Your task to perform on an android device: turn vacation reply on in the gmail app Image 0: 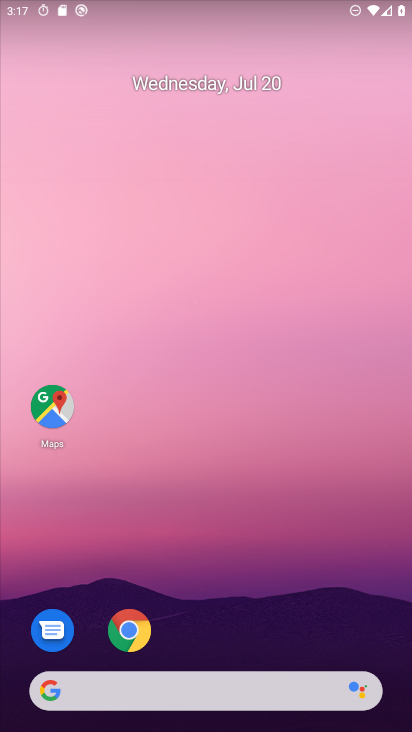
Step 0: drag from (263, 667) to (204, 171)
Your task to perform on an android device: turn vacation reply on in the gmail app Image 1: 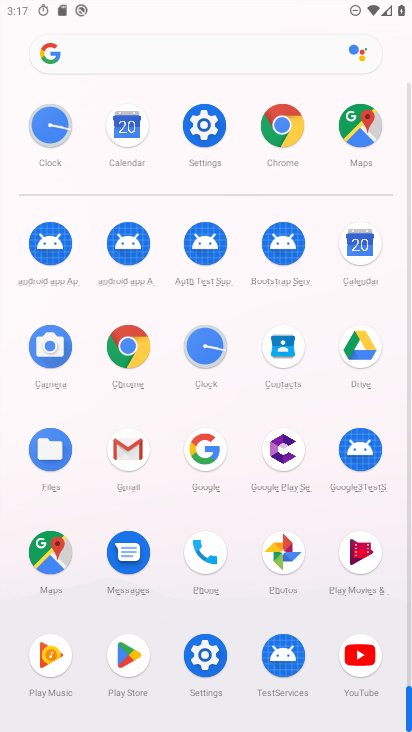
Step 1: click (125, 440)
Your task to perform on an android device: turn vacation reply on in the gmail app Image 2: 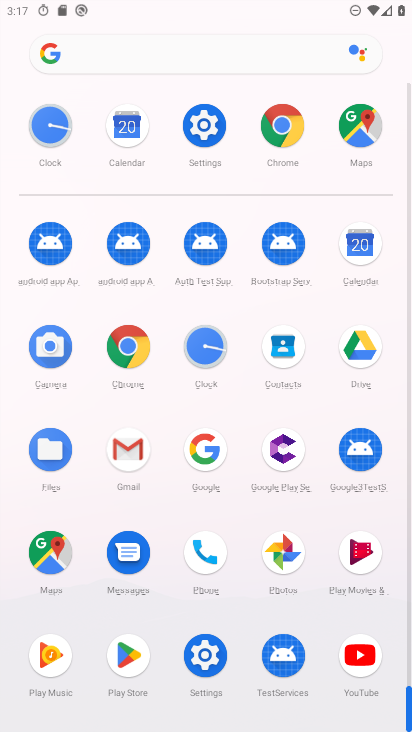
Step 2: click (127, 442)
Your task to perform on an android device: turn vacation reply on in the gmail app Image 3: 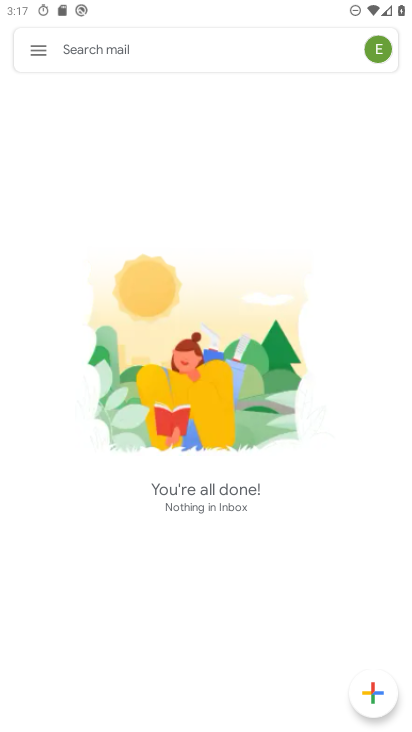
Step 3: click (38, 54)
Your task to perform on an android device: turn vacation reply on in the gmail app Image 4: 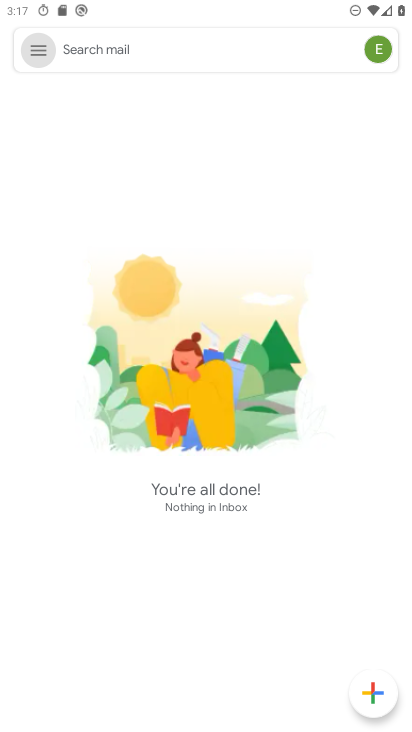
Step 4: click (41, 57)
Your task to perform on an android device: turn vacation reply on in the gmail app Image 5: 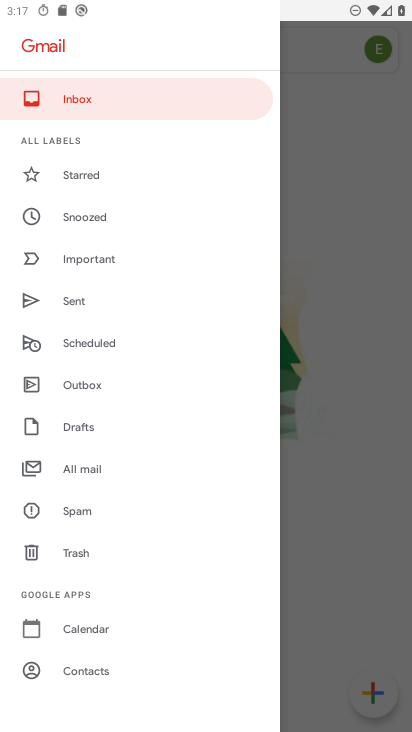
Step 5: drag from (100, 683) to (108, 219)
Your task to perform on an android device: turn vacation reply on in the gmail app Image 6: 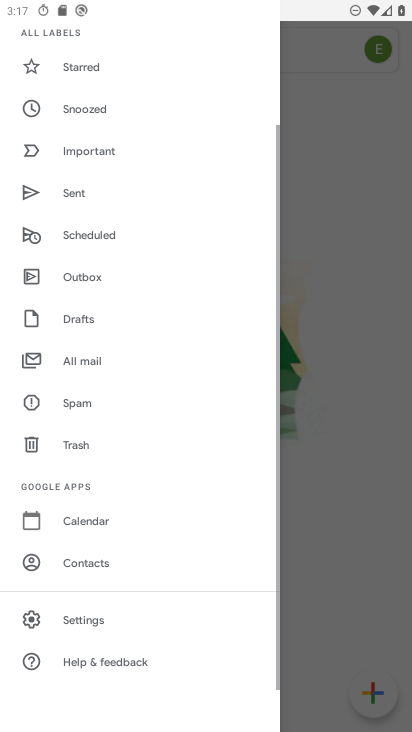
Step 6: drag from (149, 492) to (144, 317)
Your task to perform on an android device: turn vacation reply on in the gmail app Image 7: 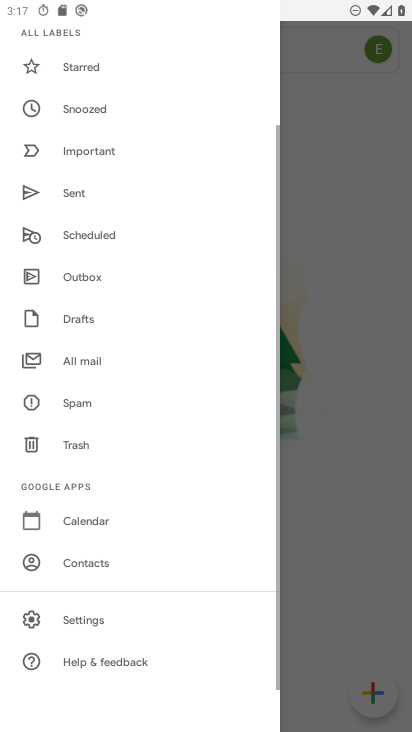
Step 7: click (89, 612)
Your task to perform on an android device: turn vacation reply on in the gmail app Image 8: 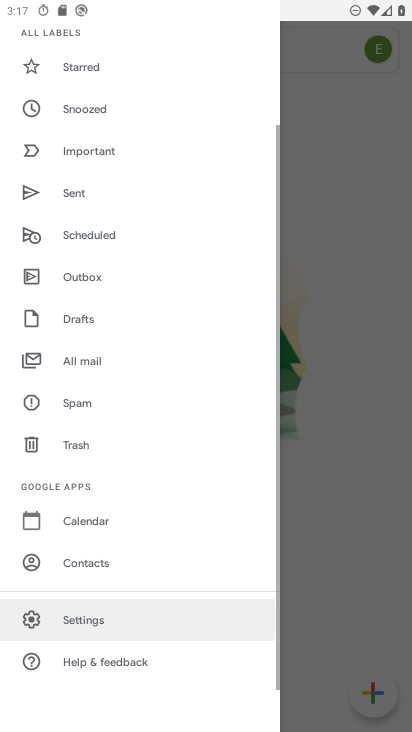
Step 8: click (70, 606)
Your task to perform on an android device: turn vacation reply on in the gmail app Image 9: 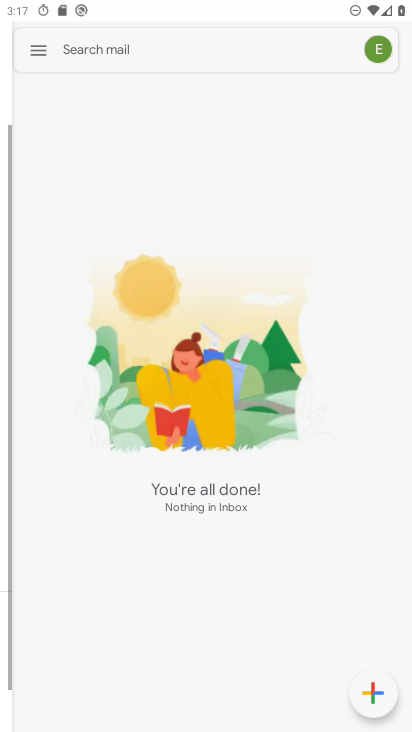
Step 9: click (70, 606)
Your task to perform on an android device: turn vacation reply on in the gmail app Image 10: 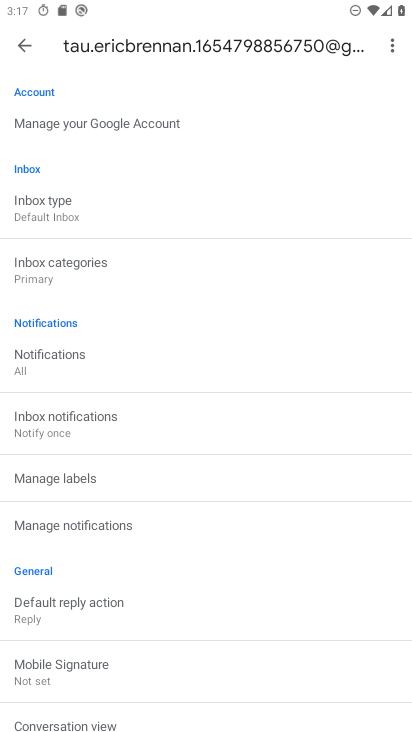
Step 10: drag from (136, 429) to (148, 132)
Your task to perform on an android device: turn vacation reply on in the gmail app Image 11: 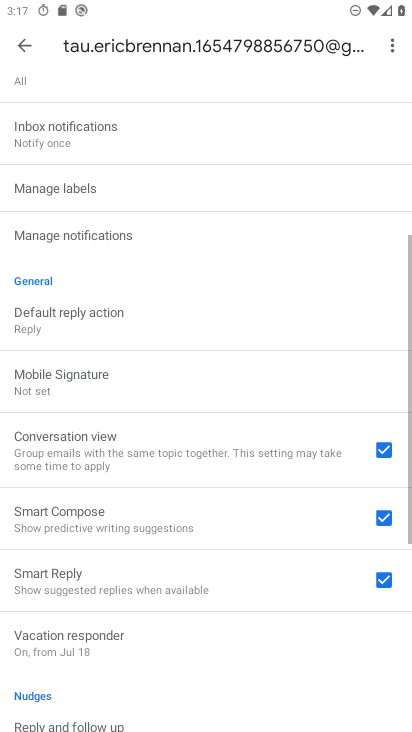
Step 11: drag from (203, 447) to (172, 238)
Your task to perform on an android device: turn vacation reply on in the gmail app Image 12: 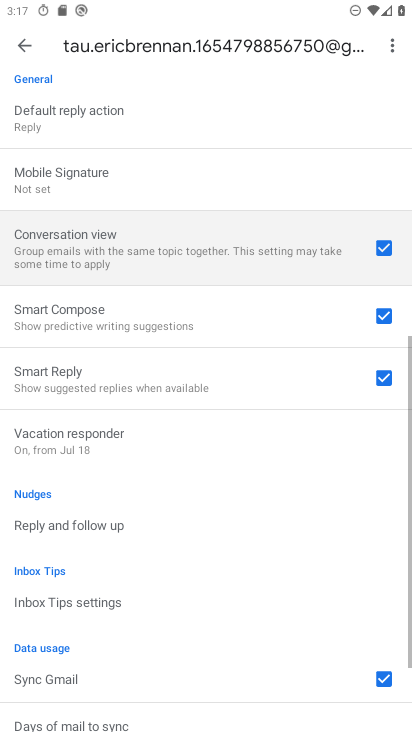
Step 12: drag from (227, 489) to (252, 305)
Your task to perform on an android device: turn vacation reply on in the gmail app Image 13: 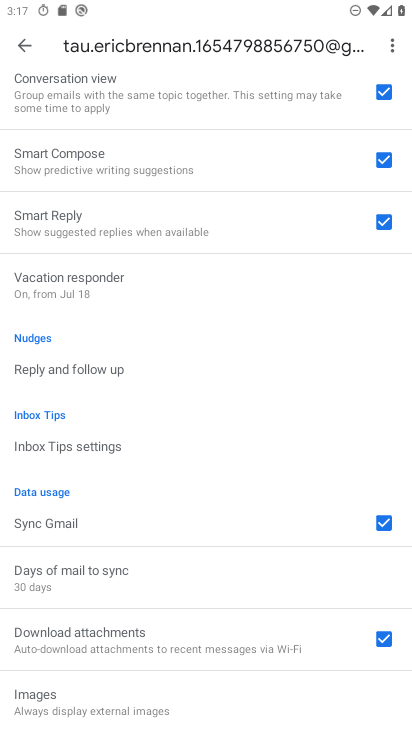
Step 13: click (88, 268)
Your task to perform on an android device: turn vacation reply on in the gmail app Image 14: 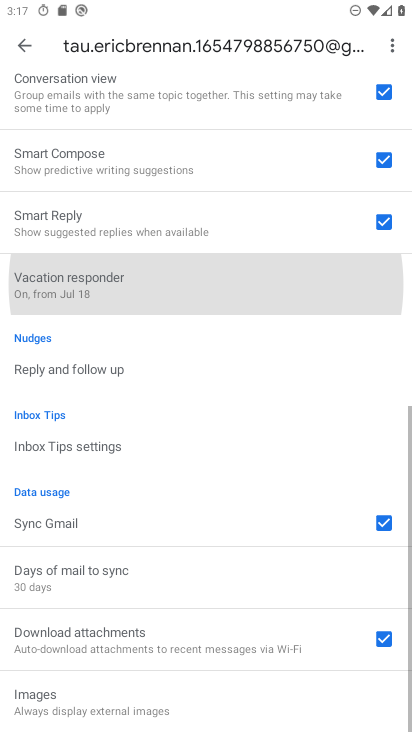
Step 14: click (78, 281)
Your task to perform on an android device: turn vacation reply on in the gmail app Image 15: 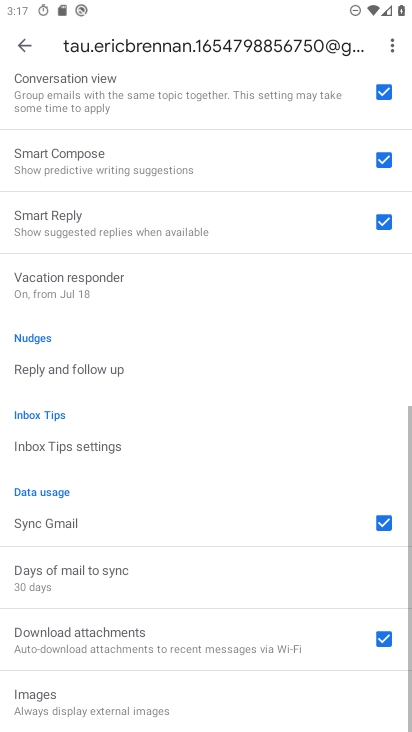
Step 15: click (77, 282)
Your task to perform on an android device: turn vacation reply on in the gmail app Image 16: 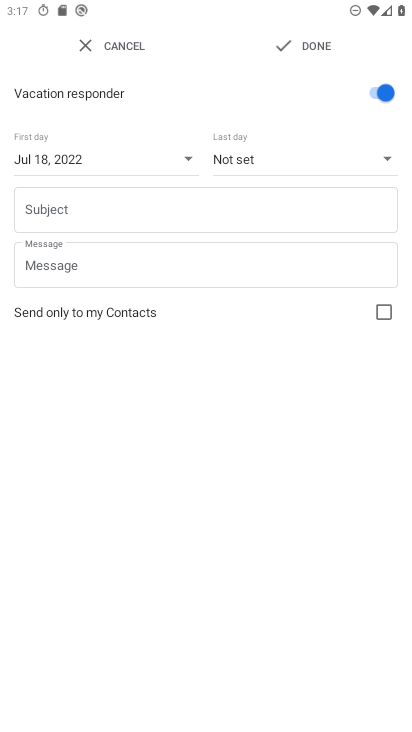
Step 16: task complete